Your task to perform on an android device: Go to network settings Image 0: 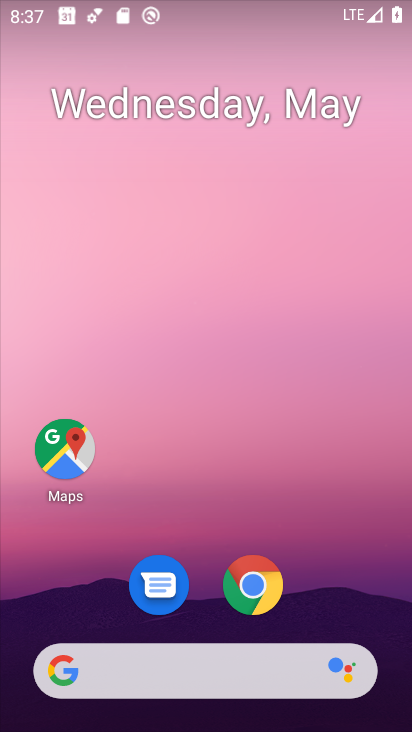
Step 0: drag from (317, 526) to (259, 27)
Your task to perform on an android device: Go to network settings Image 1: 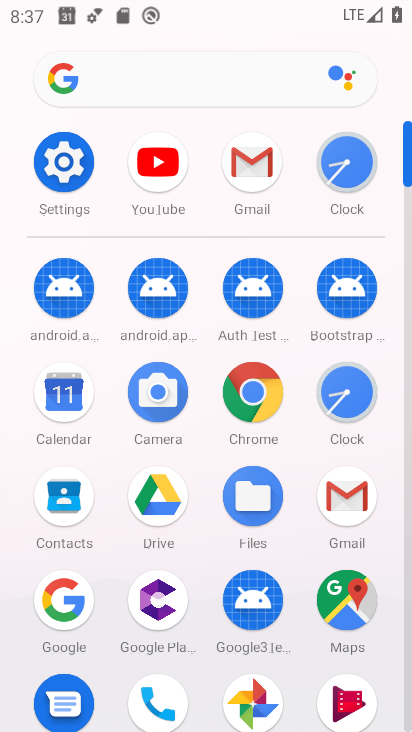
Step 1: click (84, 149)
Your task to perform on an android device: Go to network settings Image 2: 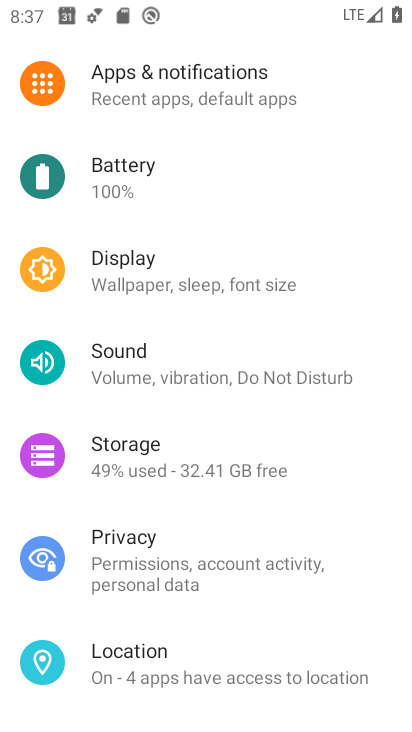
Step 2: drag from (222, 222) to (297, 592)
Your task to perform on an android device: Go to network settings Image 3: 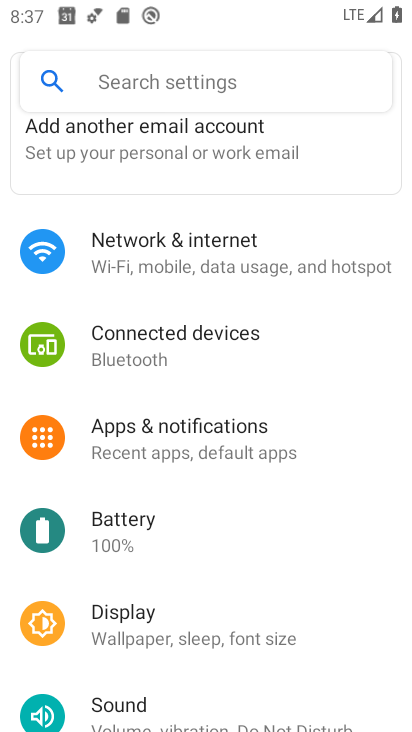
Step 3: click (218, 259)
Your task to perform on an android device: Go to network settings Image 4: 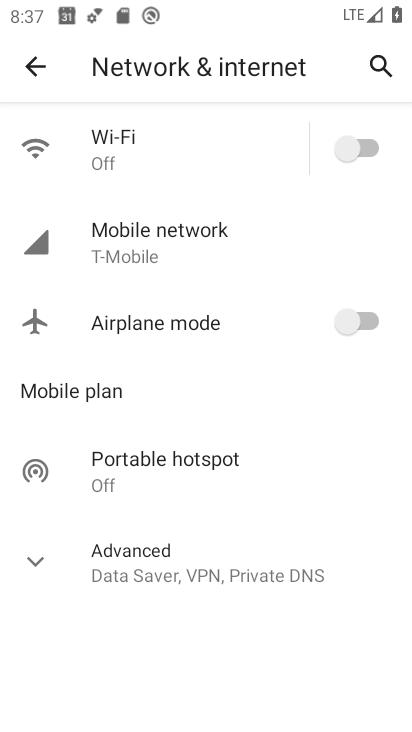
Step 4: task complete